Your task to perform on an android device: change notification settings in the gmail app Image 0: 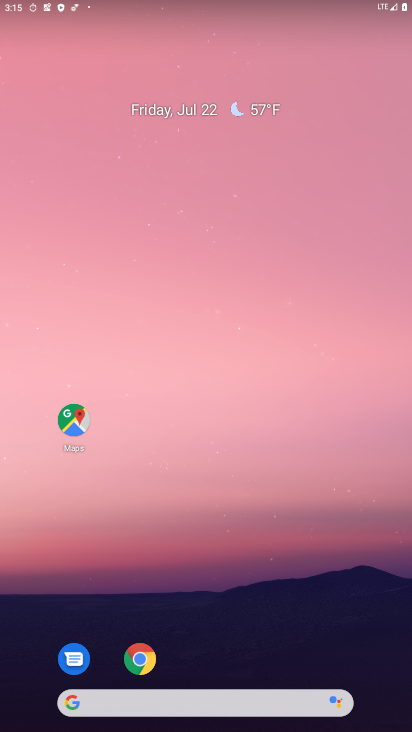
Step 0: drag from (254, 676) to (250, 235)
Your task to perform on an android device: change notification settings in the gmail app Image 1: 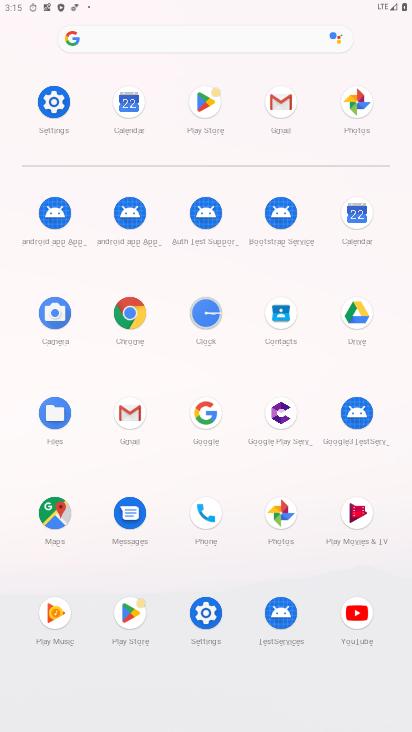
Step 1: click (120, 401)
Your task to perform on an android device: change notification settings in the gmail app Image 2: 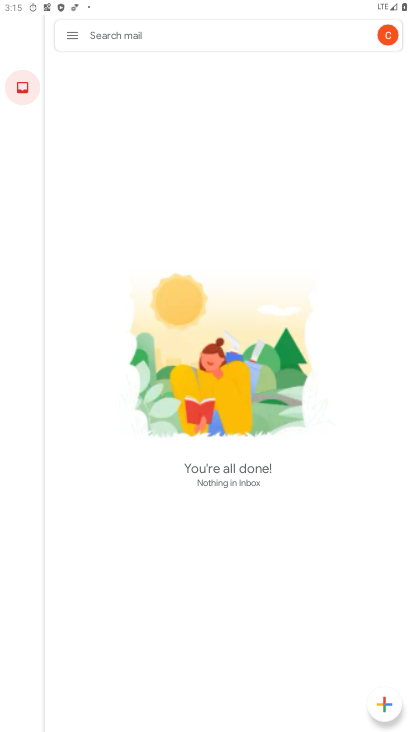
Step 2: click (75, 34)
Your task to perform on an android device: change notification settings in the gmail app Image 3: 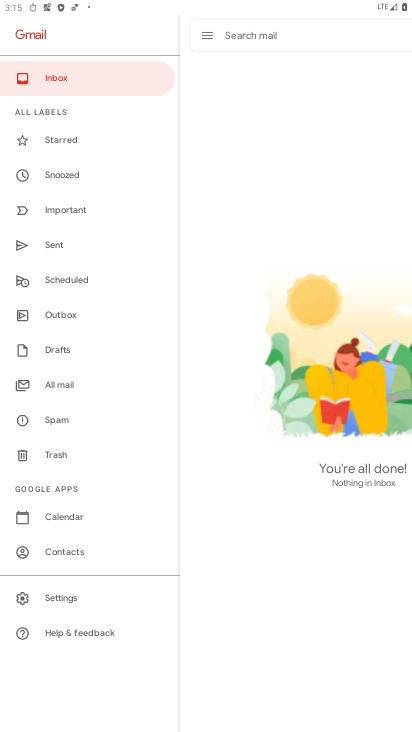
Step 3: click (66, 591)
Your task to perform on an android device: change notification settings in the gmail app Image 4: 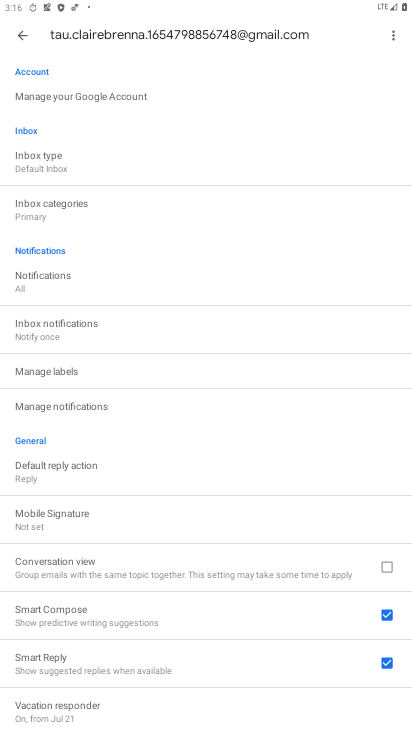
Step 4: click (69, 404)
Your task to perform on an android device: change notification settings in the gmail app Image 5: 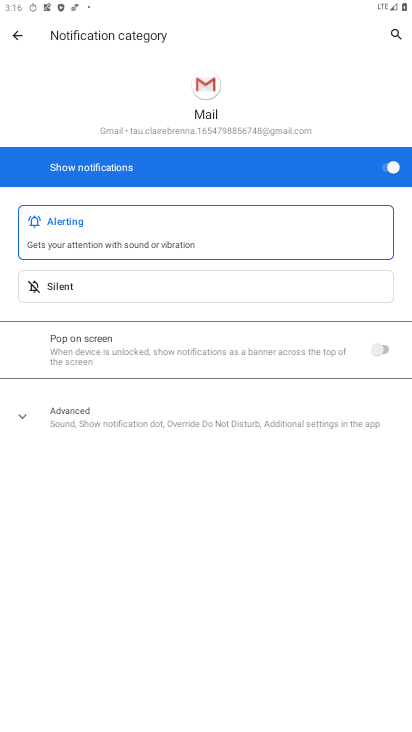
Step 5: click (364, 163)
Your task to perform on an android device: change notification settings in the gmail app Image 6: 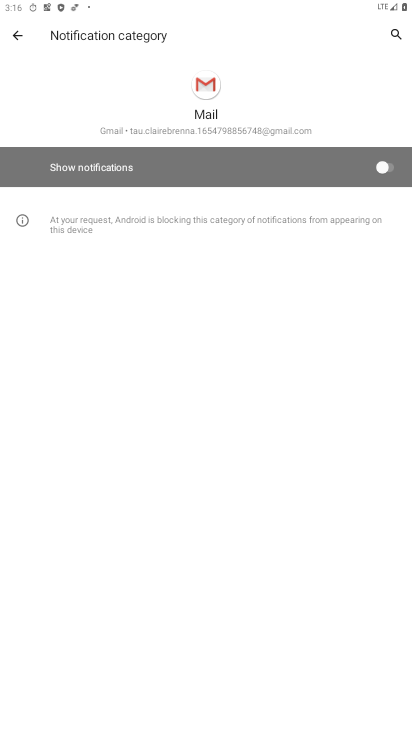
Step 6: task complete